Your task to perform on an android device: change notifications settings Image 0: 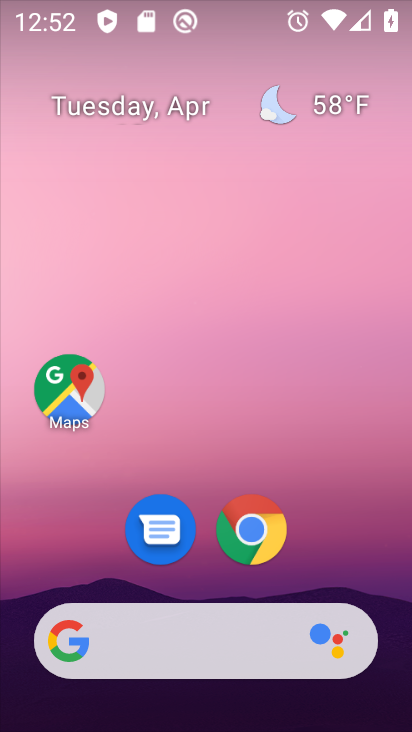
Step 0: drag from (384, 592) to (241, 23)
Your task to perform on an android device: change notifications settings Image 1: 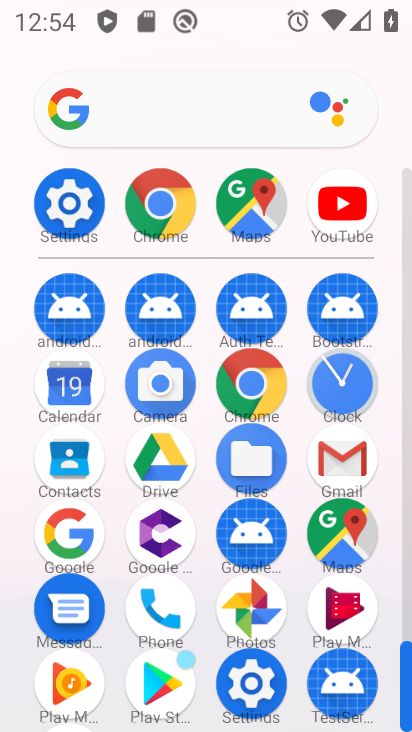
Step 1: click (253, 678)
Your task to perform on an android device: change notifications settings Image 2: 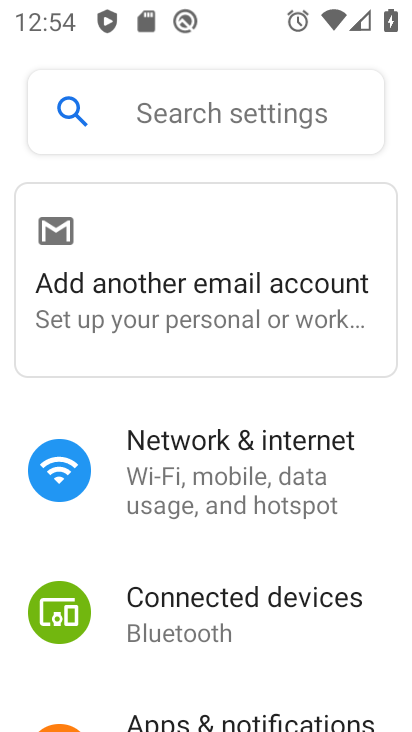
Step 2: drag from (253, 674) to (170, 101)
Your task to perform on an android device: change notifications settings Image 3: 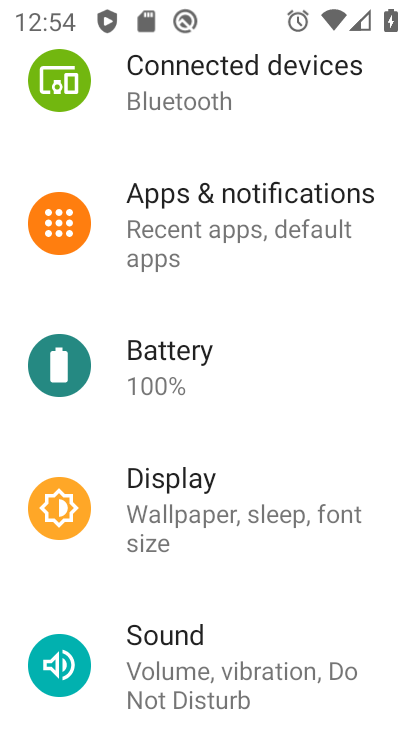
Step 3: drag from (184, 686) to (225, 199)
Your task to perform on an android device: change notifications settings Image 4: 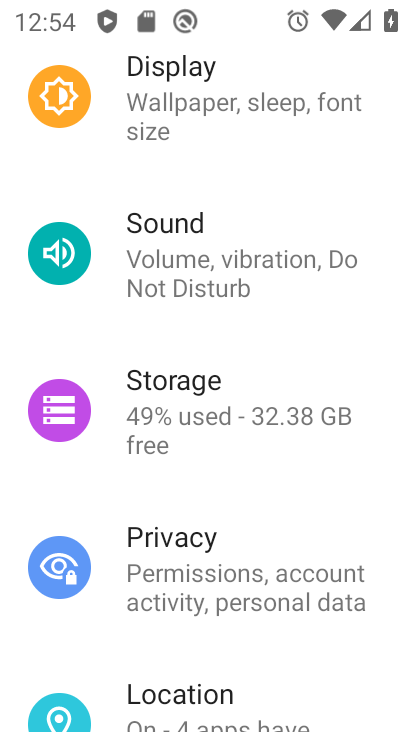
Step 4: drag from (181, 638) to (252, 211)
Your task to perform on an android device: change notifications settings Image 5: 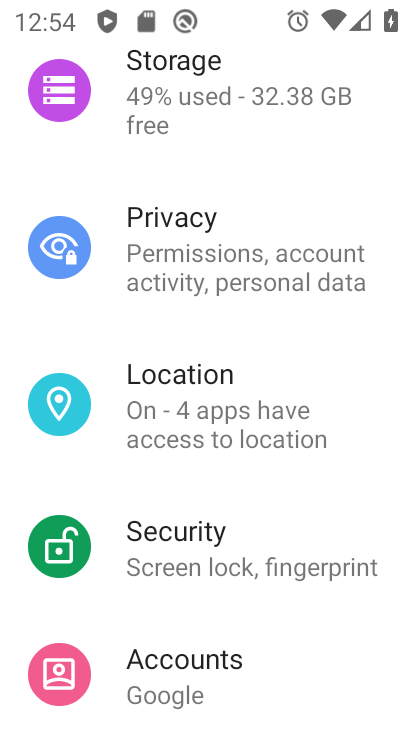
Step 5: drag from (234, 171) to (270, 633)
Your task to perform on an android device: change notifications settings Image 6: 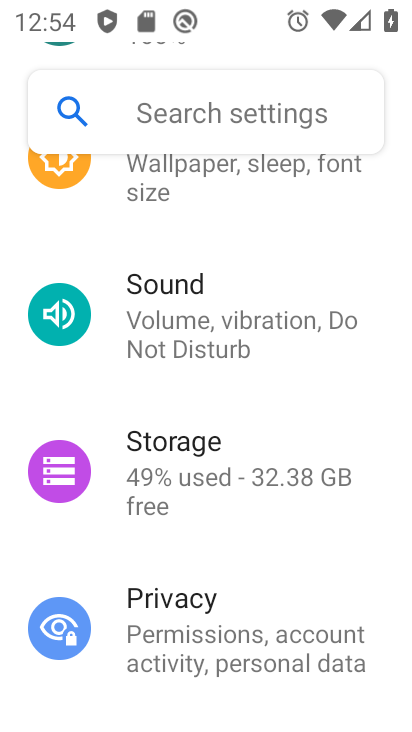
Step 6: drag from (180, 213) to (212, 497)
Your task to perform on an android device: change notifications settings Image 7: 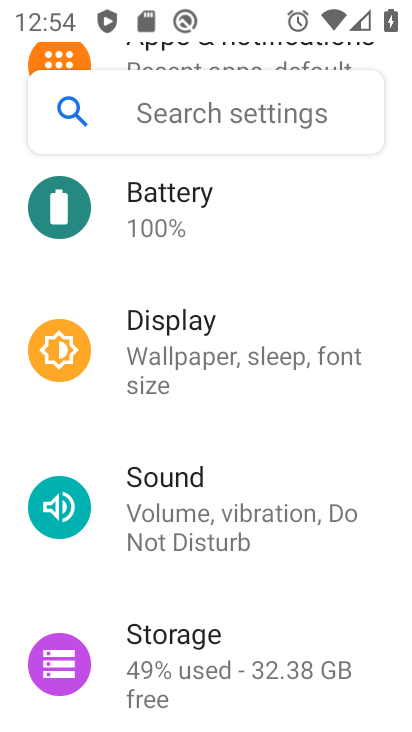
Step 7: drag from (187, 316) to (198, 564)
Your task to perform on an android device: change notifications settings Image 8: 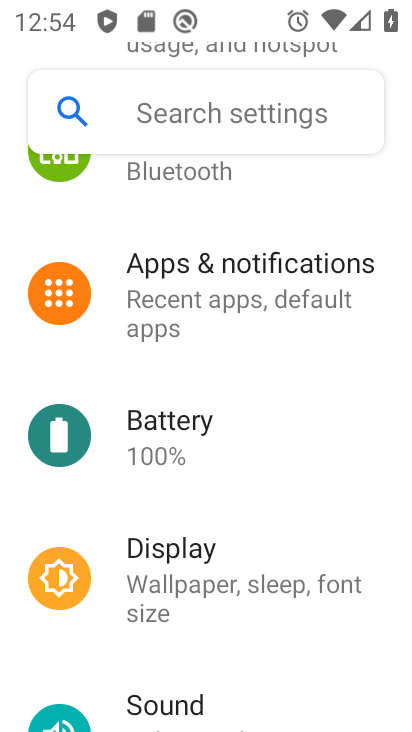
Step 8: click (184, 315)
Your task to perform on an android device: change notifications settings Image 9: 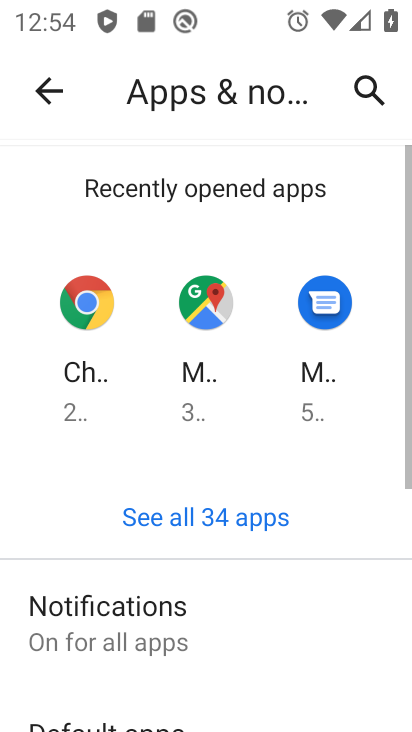
Step 9: click (167, 591)
Your task to perform on an android device: change notifications settings Image 10: 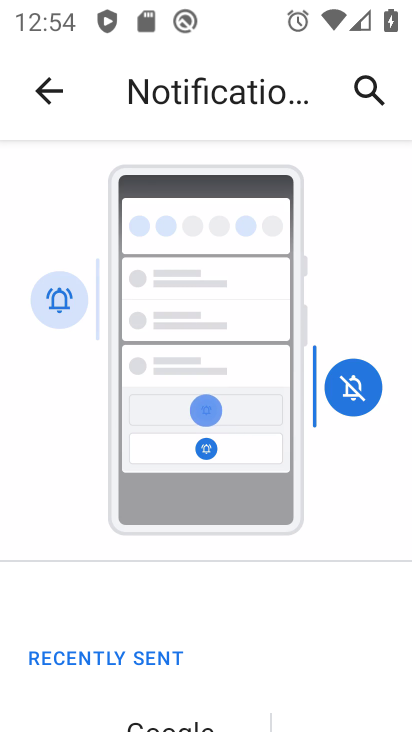
Step 10: task complete